Your task to perform on an android device: Show me popular videos on Youtube Image 0: 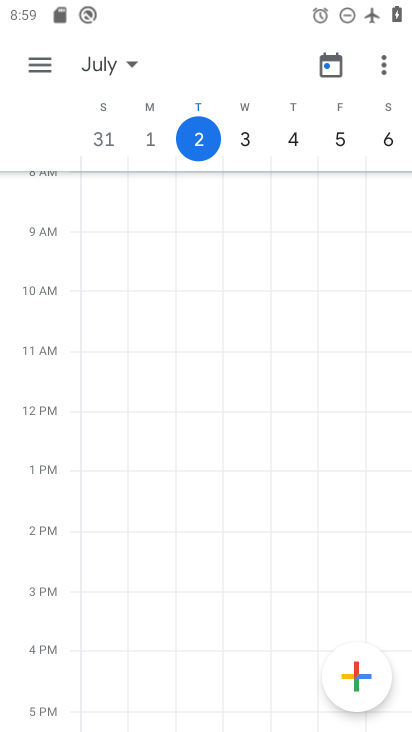
Step 0: press home button
Your task to perform on an android device: Show me popular videos on Youtube Image 1: 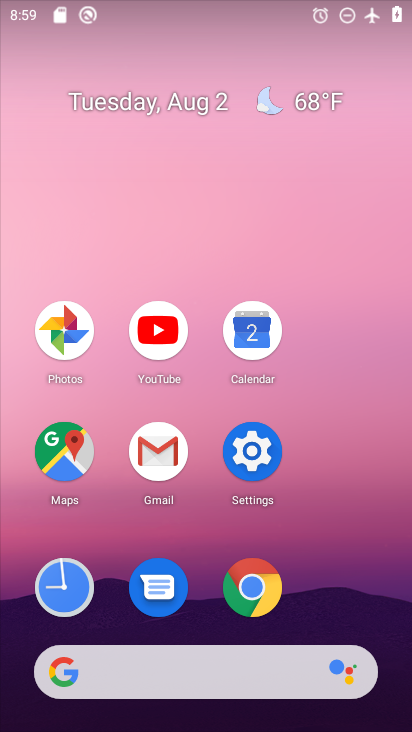
Step 1: click (151, 332)
Your task to perform on an android device: Show me popular videos on Youtube Image 2: 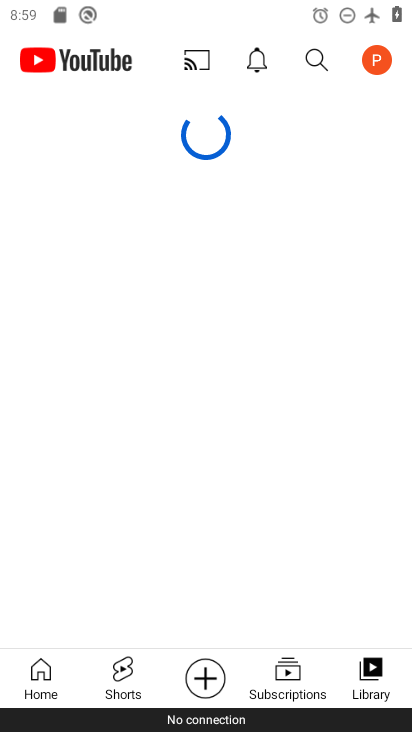
Step 2: click (115, 667)
Your task to perform on an android device: Show me popular videos on Youtube Image 3: 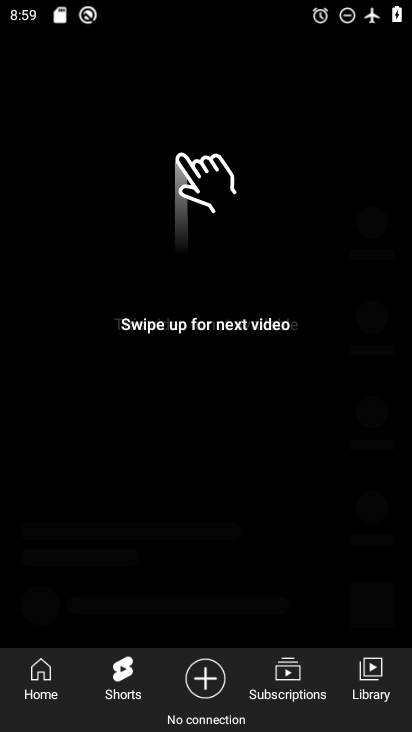
Step 3: click (240, 314)
Your task to perform on an android device: Show me popular videos on Youtube Image 4: 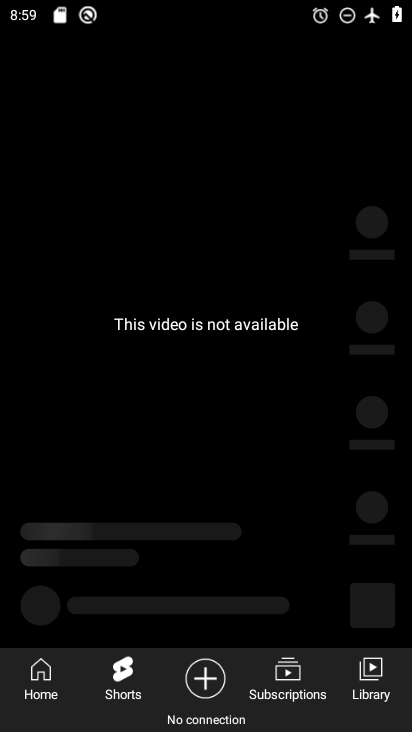
Step 4: task complete